Your task to perform on an android device: Go to Maps Image 0: 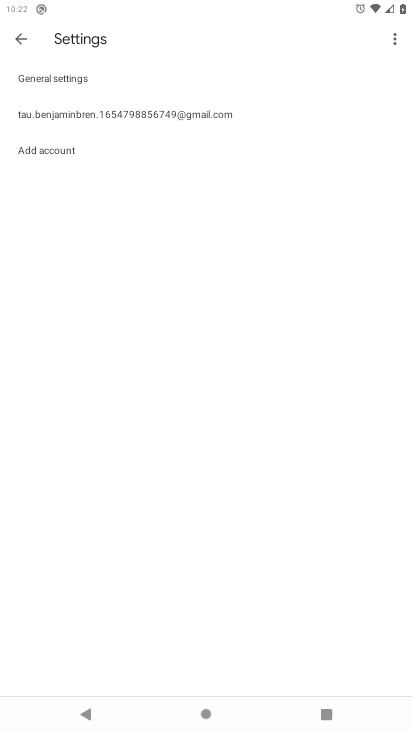
Step 0: press home button
Your task to perform on an android device: Go to Maps Image 1: 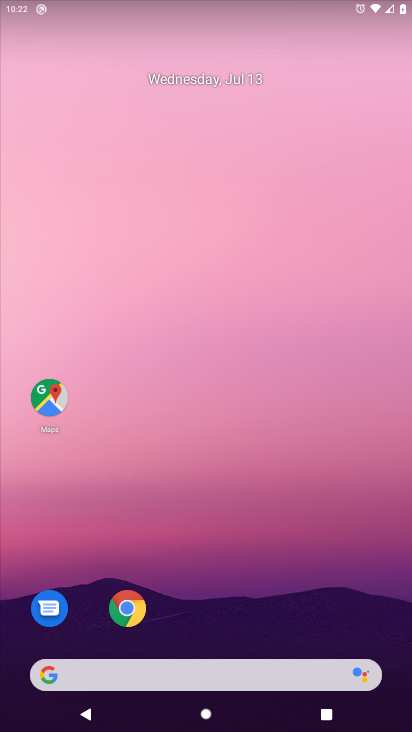
Step 1: click (49, 396)
Your task to perform on an android device: Go to Maps Image 2: 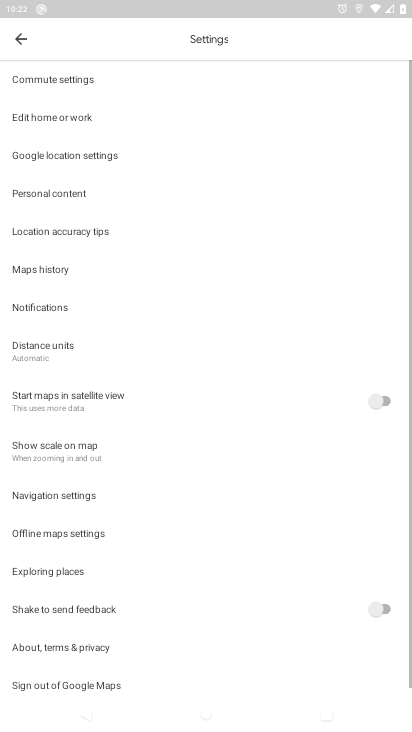
Step 2: click (20, 49)
Your task to perform on an android device: Go to Maps Image 3: 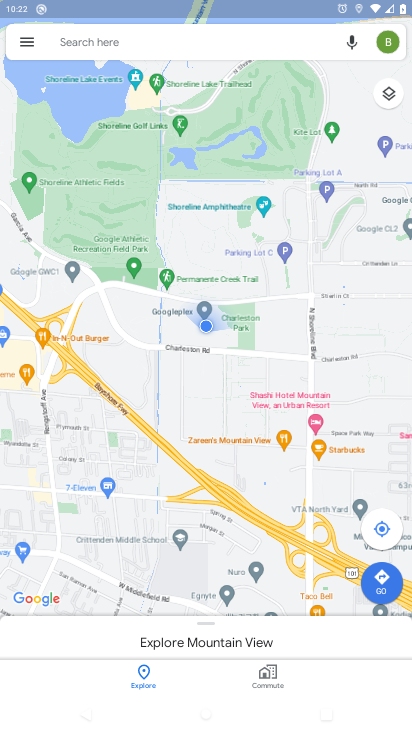
Step 3: task complete